Your task to perform on an android device: find photos in the google photos app Image 0: 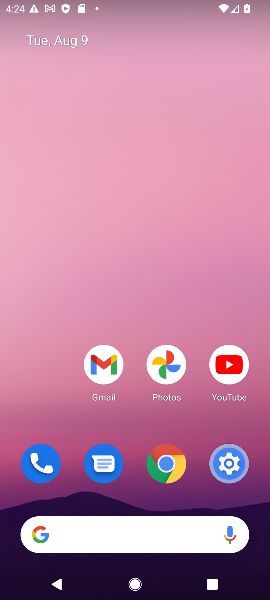
Step 0: click (162, 368)
Your task to perform on an android device: find photos in the google photos app Image 1: 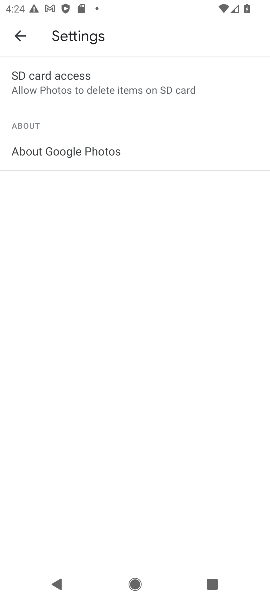
Step 1: click (11, 43)
Your task to perform on an android device: find photos in the google photos app Image 2: 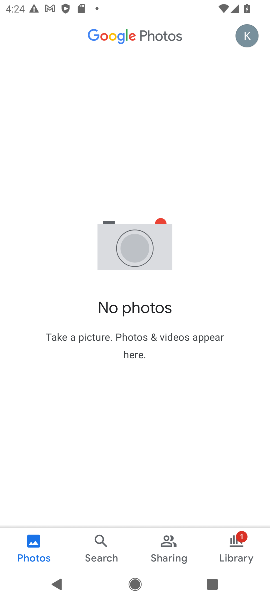
Step 2: task complete